Your task to perform on an android device: Open Chrome and go to settings Image 0: 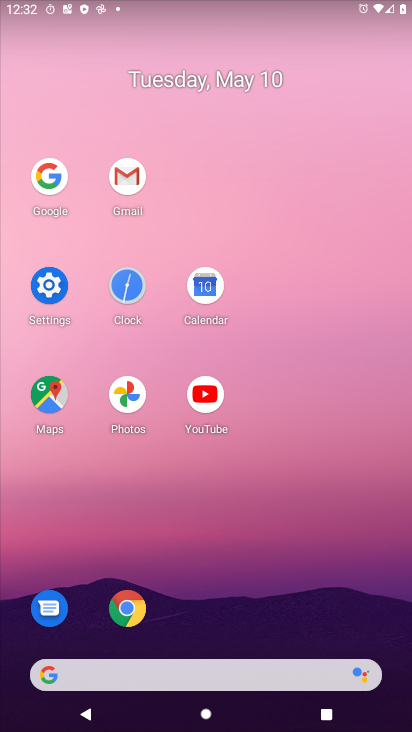
Step 0: click (125, 612)
Your task to perform on an android device: Open Chrome and go to settings Image 1: 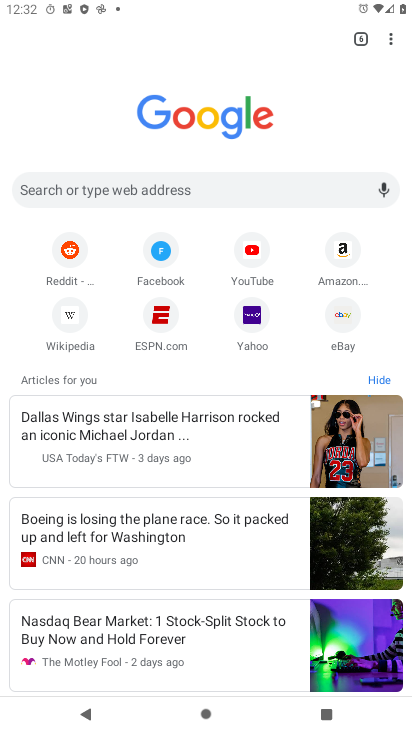
Step 1: click (390, 37)
Your task to perform on an android device: Open Chrome and go to settings Image 2: 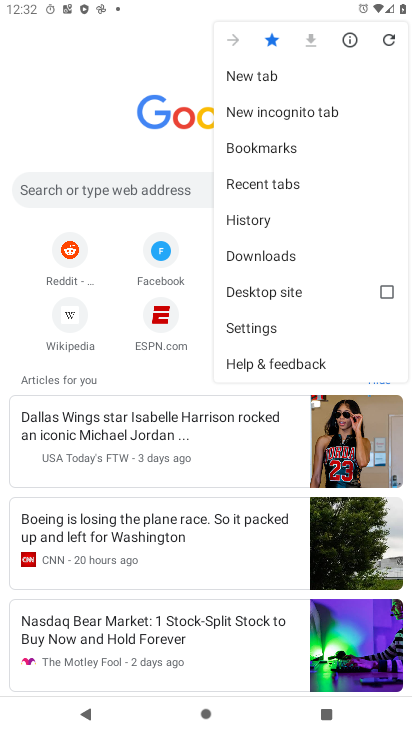
Step 2: click (262, 325)
Your task to perform on an android device: Open Chrome and go to settings Image 3: 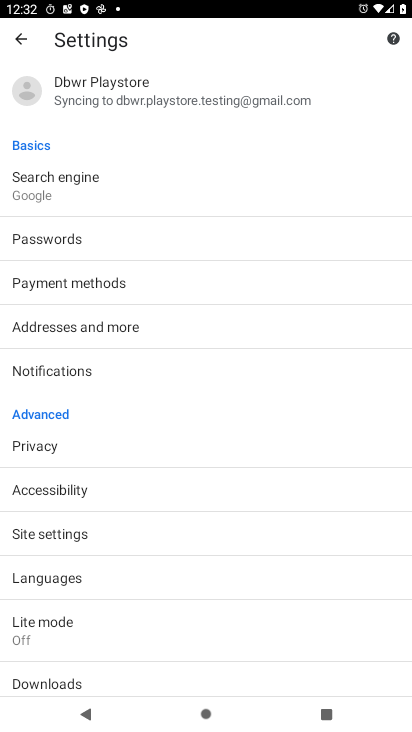
Step 3: task complete